Your task to perform on an android device: Open Reddit.com Image 0: 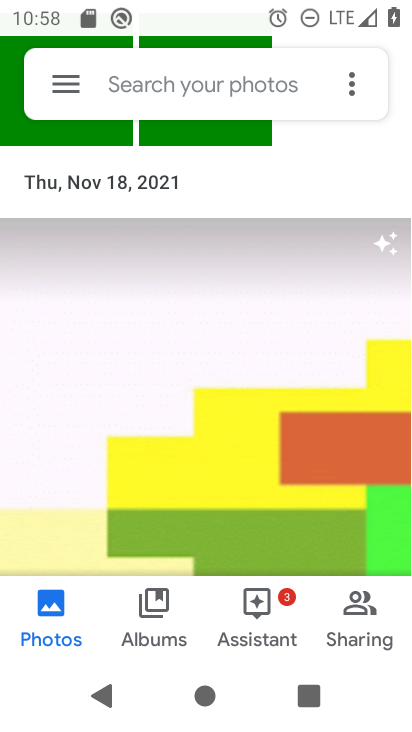
Step 0: press home button
Your task to perform on an android device: Open Reddit.com Image 1: 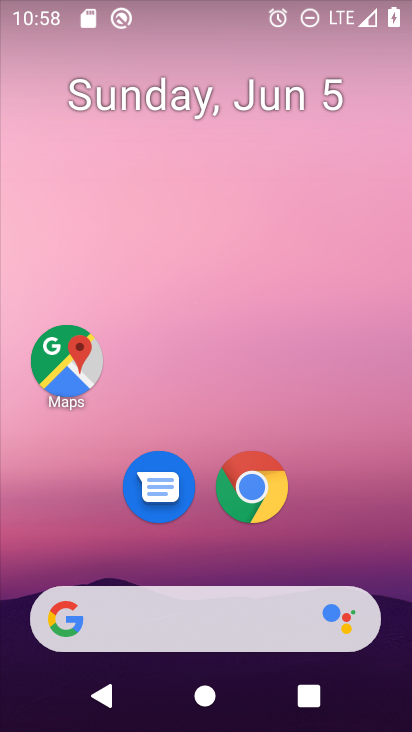
Step 1: click (263, 503)
Your task to perform on an android device: Open Reddit.com Image 2: 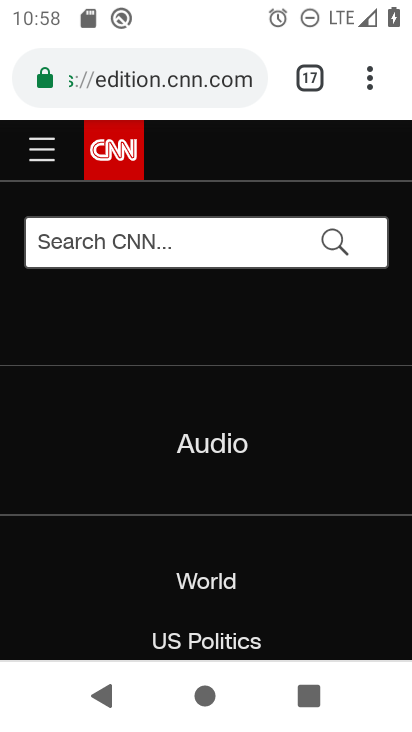
Step 2: click (291, 69)
Your task to perform on an android device: Open Reddit.com Image 3: 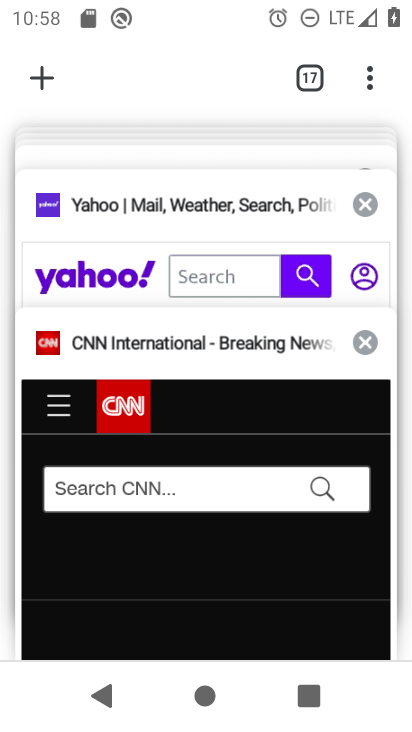
Step 3: drag from (261, 197) to (211, 550)
Your task to perform on an android device: Open Reddit.com Image 4: 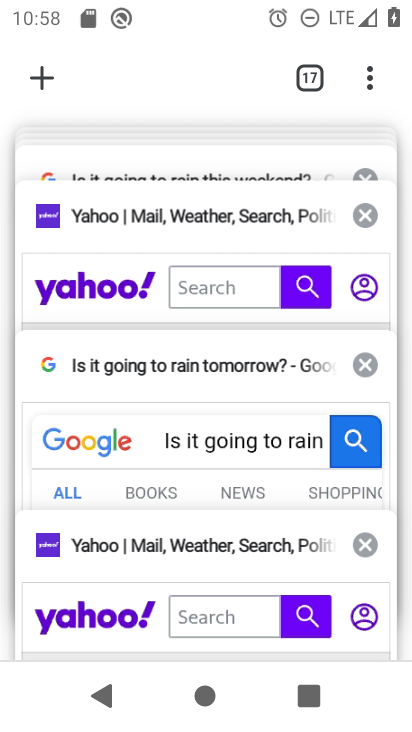
Step 4: drag from (197, 253) to (155, 561)
Your task to perform on an android device: Open Reddit.com Image 5: 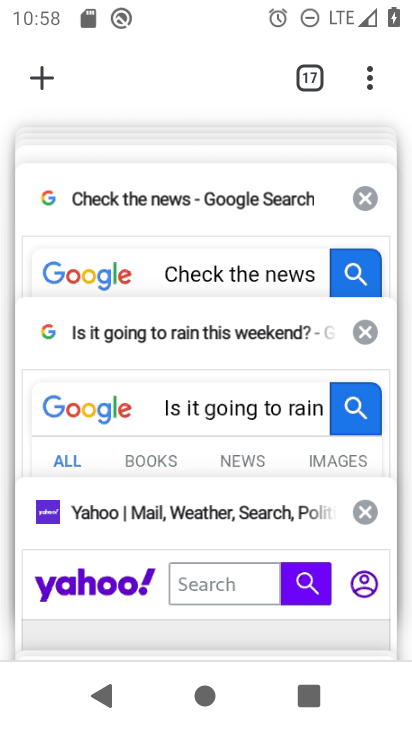
Step 5: drag from (163, 197) to (147, 602)
Your task to perform on an android device: Open Reddit.com Image 6: 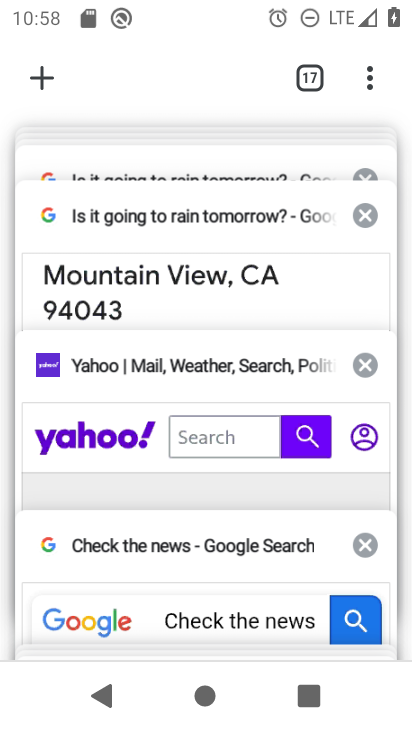
Step 6: drag from (195, 250) to (178, 577)
Your task to perform on an android device: Open Reddit.com Image 7: 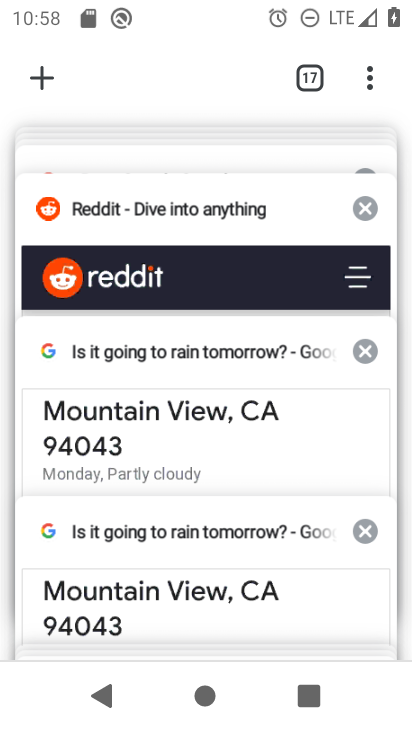
Step 7: click (174, 204)
Your task to perform on an android device: Open Reddit.com Image 8: 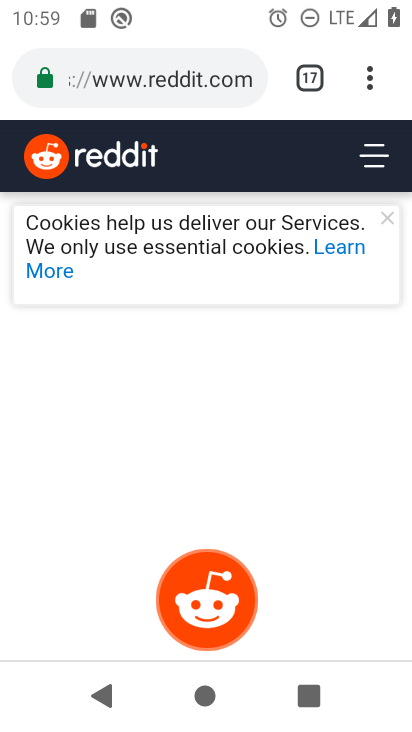
Step 8: task complete